Your task to perform on an android device: What's on my calendar tomorrow? Image 0: 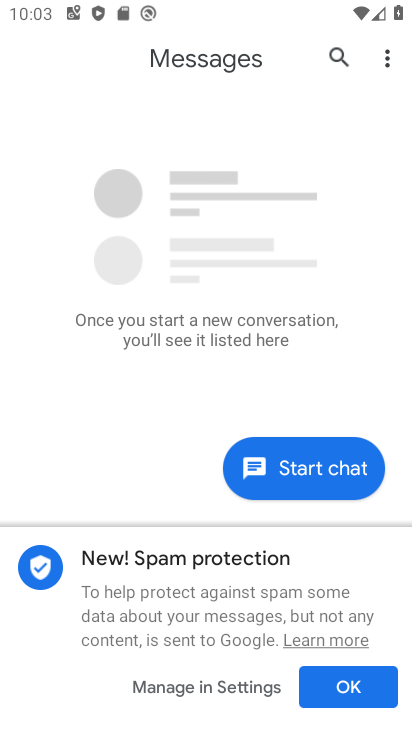
Step 0: press home button
Your task to perform on an android device: What's on my calendar tomorrow? Image 1: 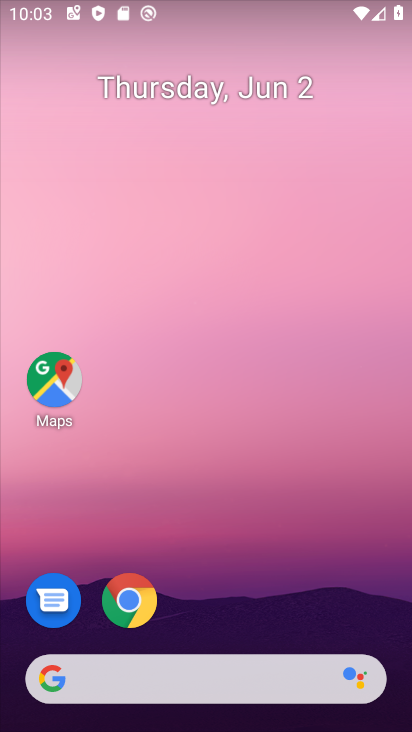
Step 1: drag from (126, 730) to (108, 91)
Your task to perform on an android device: What's on my calendar tomorrow? Image 2: 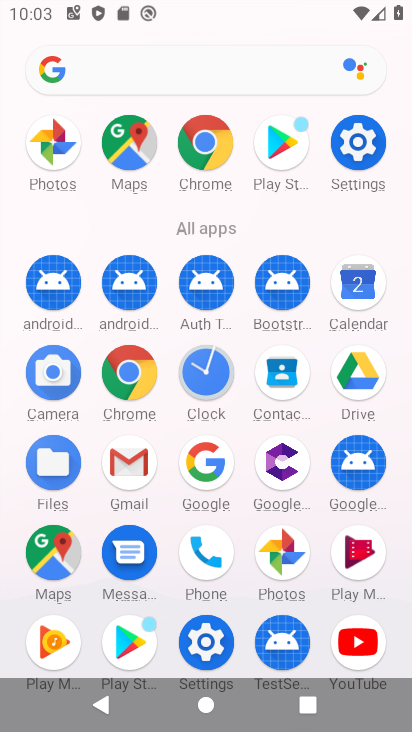
Step 2: click (354, 286)
Your task to perform on an android device: What's on my calendar tomorrow? Image 3: 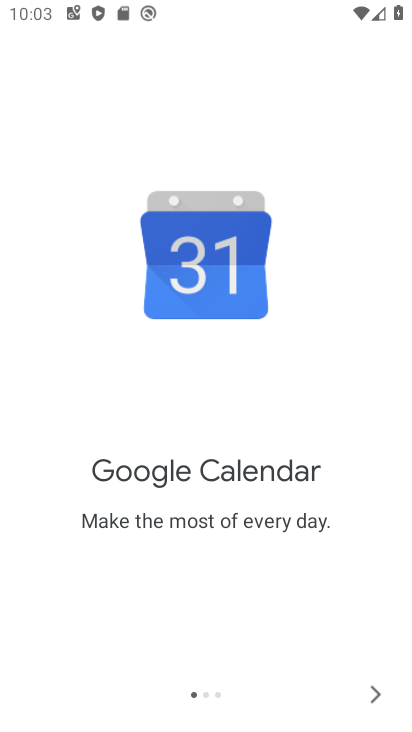
Step 3: click (378, 699)
Your task to perform on an android device: What's on my calendar tomorrow? Image 4: 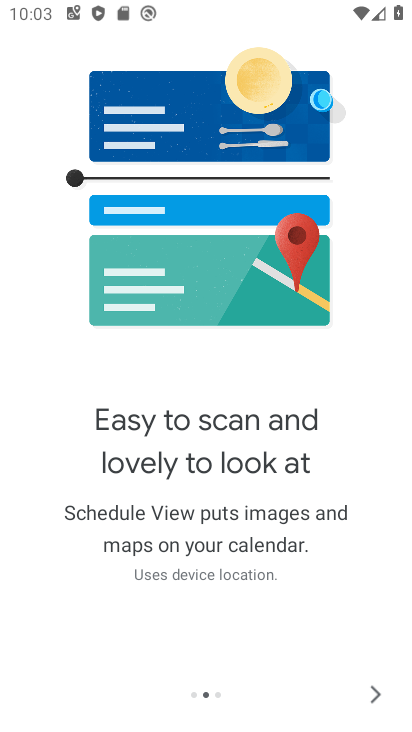
Step 4: click (378, 698)
Your task to perform on an android device: What's on my calendar tomorrow? Image 5: 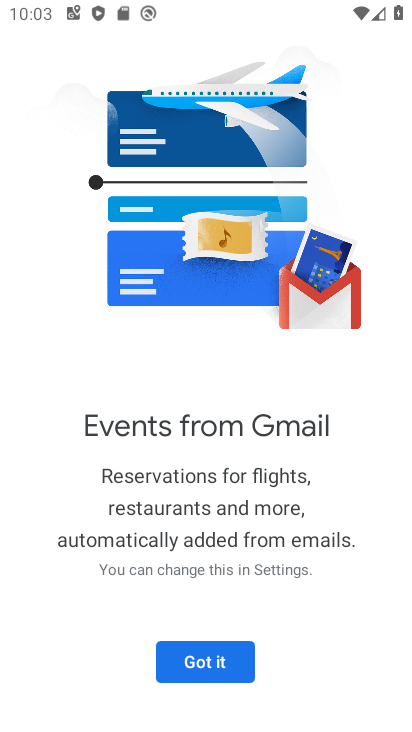
Step 5: click (188, 673)
Your task to perform on an android device: What's on my calendar tomorrow? Image 6: 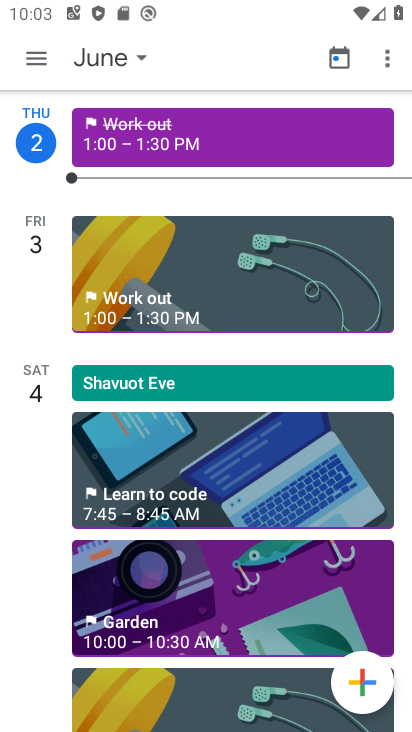
Step 6: click (97, 272)
Your task to perform on an android device: What's on my calendar tomorrow? Image 7: 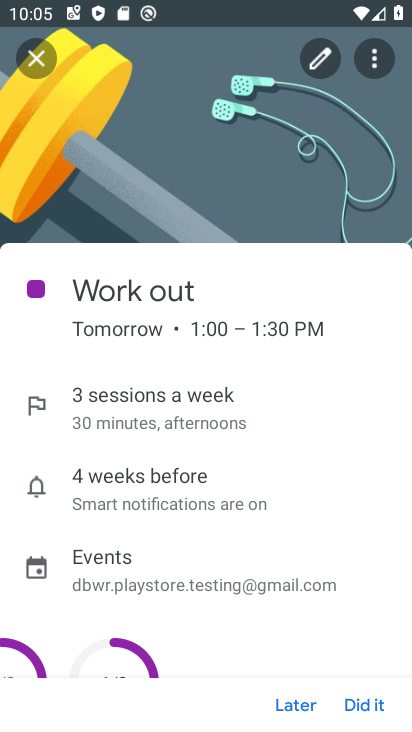
Step 7: task complete